Your task to perform on an android device: manage bookmarks in the chrome app Image 0: 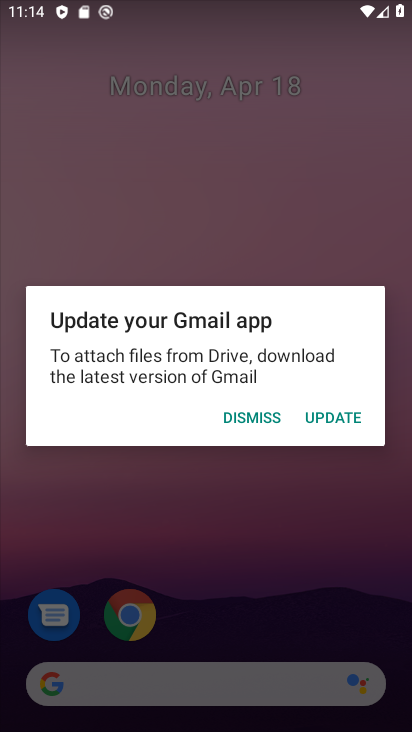
Step 0: press home button
Your task to perform on an android device: manage bookmarks in the chrome app Image 1: 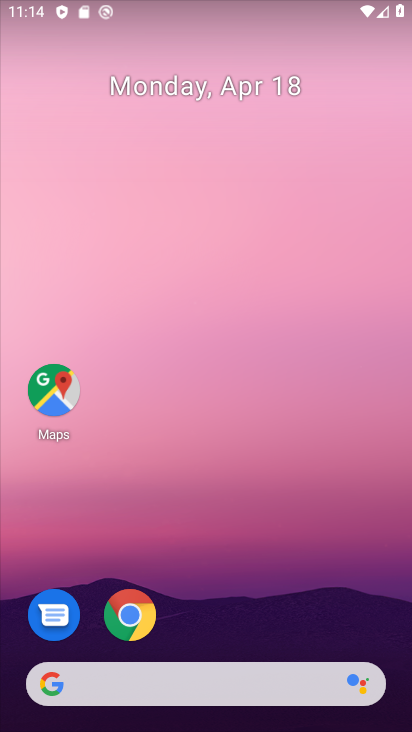
Step 1: drag from (307, 601) to (314, 93)
Your task to perform on an android device: manage bookmarks in the chrome app Image 2: 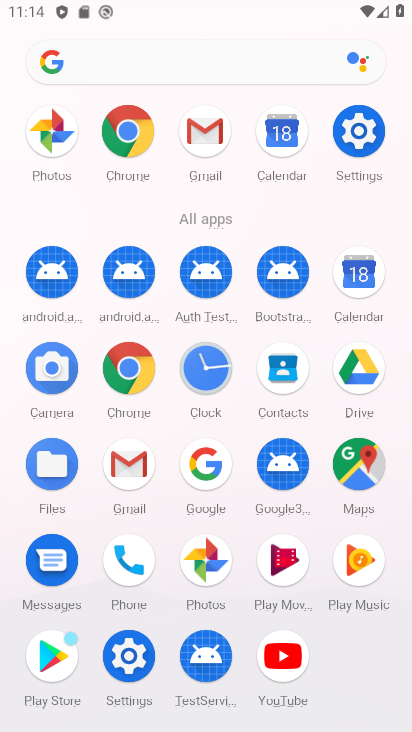
Step 2: click (128, 371)
Your task to perform on an android device: manage bookmarks in the chrome app Image 3: 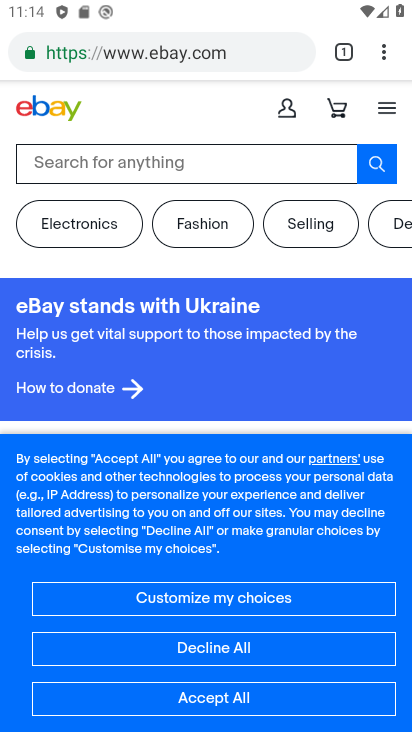
Step 3: click (383, 53)
Your task to perform on an android device: manage bookmarks in the chrome app Image 4: 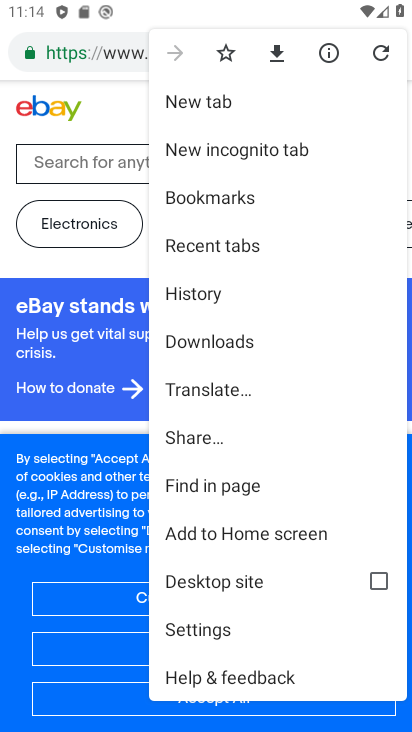
Step 4: click (228, 198)
Your task to perform on an android device: manage bookmarks in the chrome app Image 5: 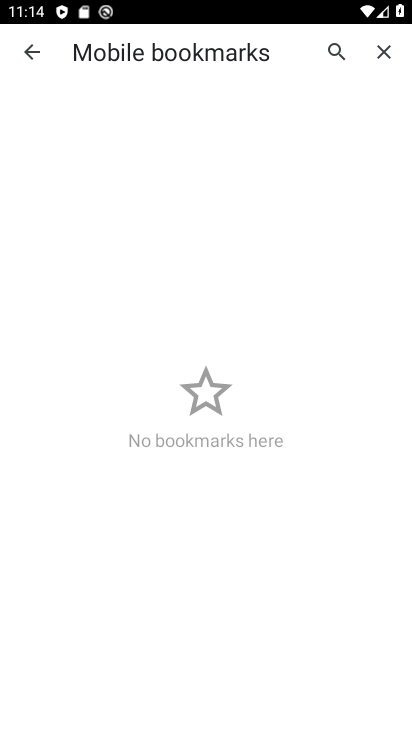
Step 5: task complete